Your task to perform on an android device: Open Yahoo.com Image 0: 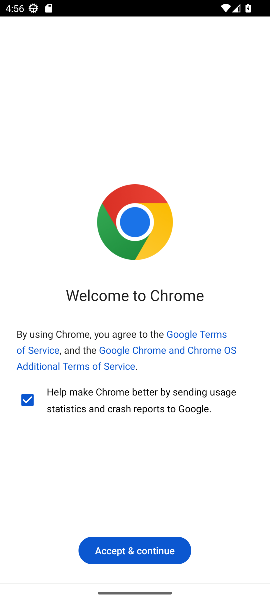
Step 0: press home button
Your task to perform on an android device: Open Yahoo.com Image 1: 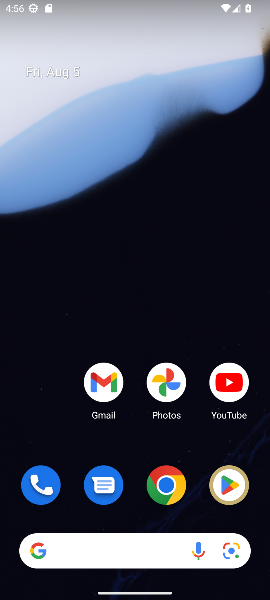
Step 1: click (167, 479)
Your task to perform on an android device: Open Yahoo.com Image 2: 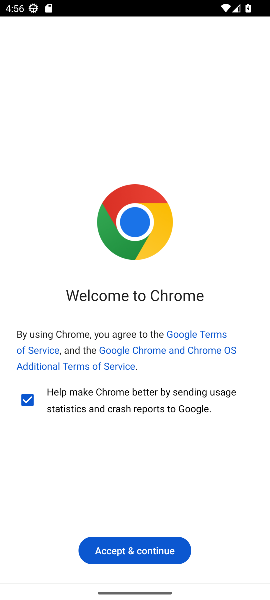
Step 2: click (140, 551)
Your task to perform on an android device: Open Yahoo.com Image 3: 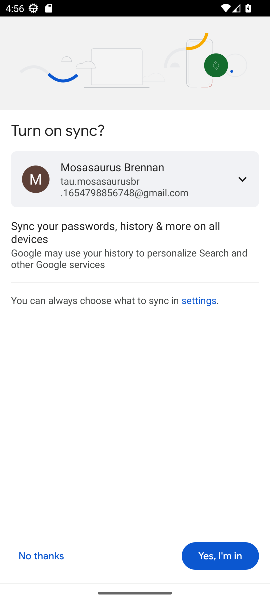
Step 3: click (232, 551)
Your task to perform on an android device: Open Yahoo.com Image 4: 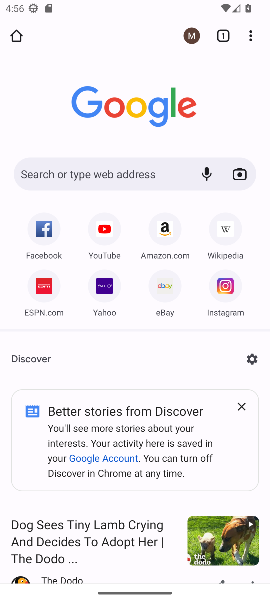
Step 4: click (102, 288)
Your task to perform on an android device: Open Yahoo.com Image 5: 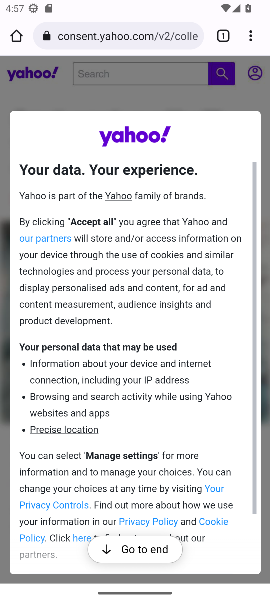
Step 5: task complete